Your task to perform on an android device: toggle location history Image 0: 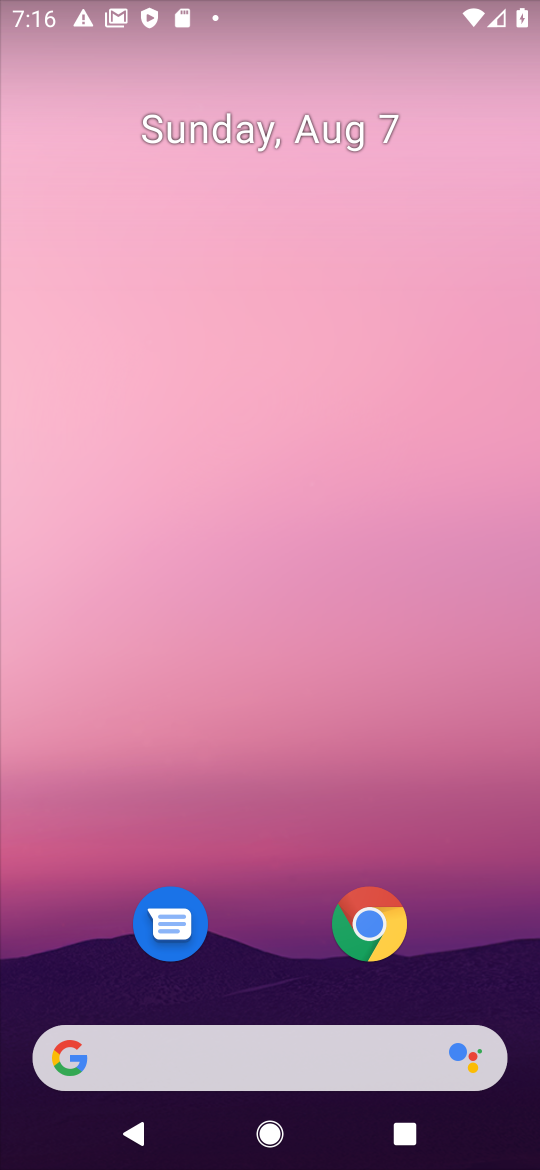
Step 0: drag from (376, 1093) to (270, 301)
Your task to perform on an android device: toggle location history Image 1: 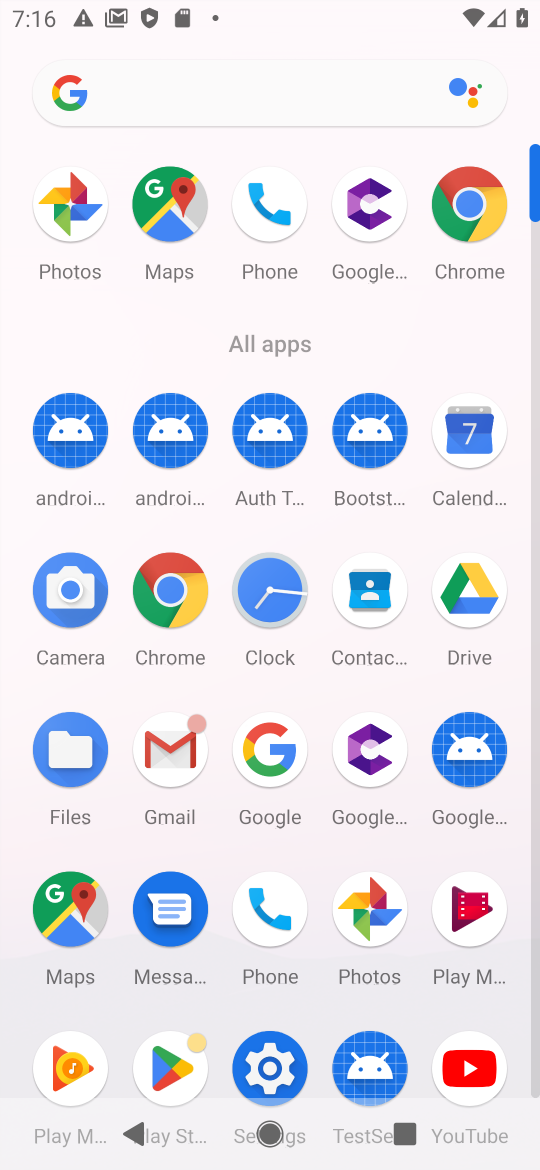
Step 1: click (271, 1054)
Your task to perform on an android device: toggle location history Image 2: 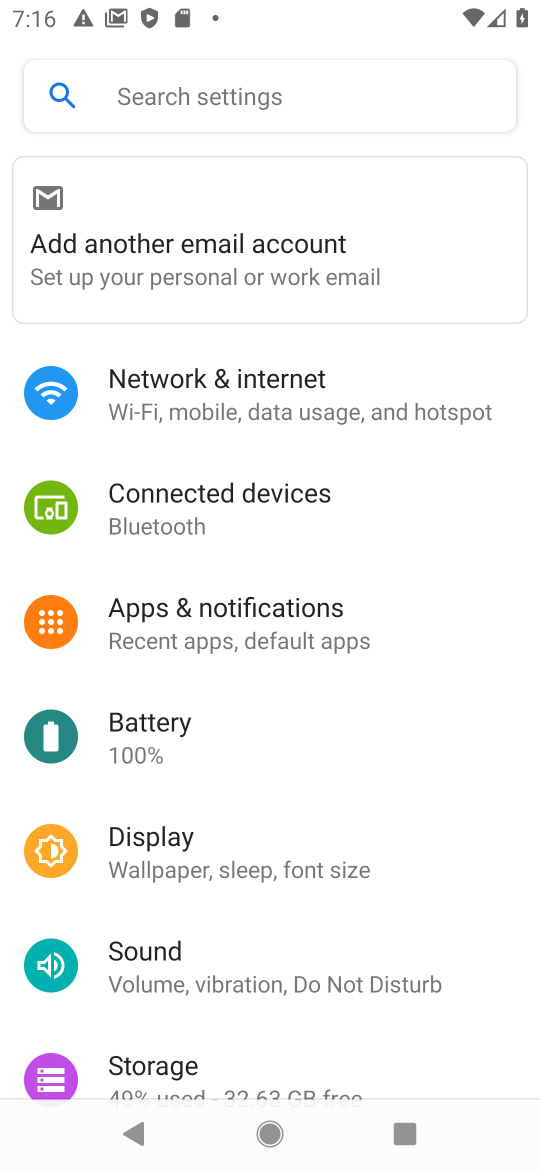
Step 2: drag from (184, 972) to (253, 806)
Your task to perform on an android device: toggle location history Image 3: 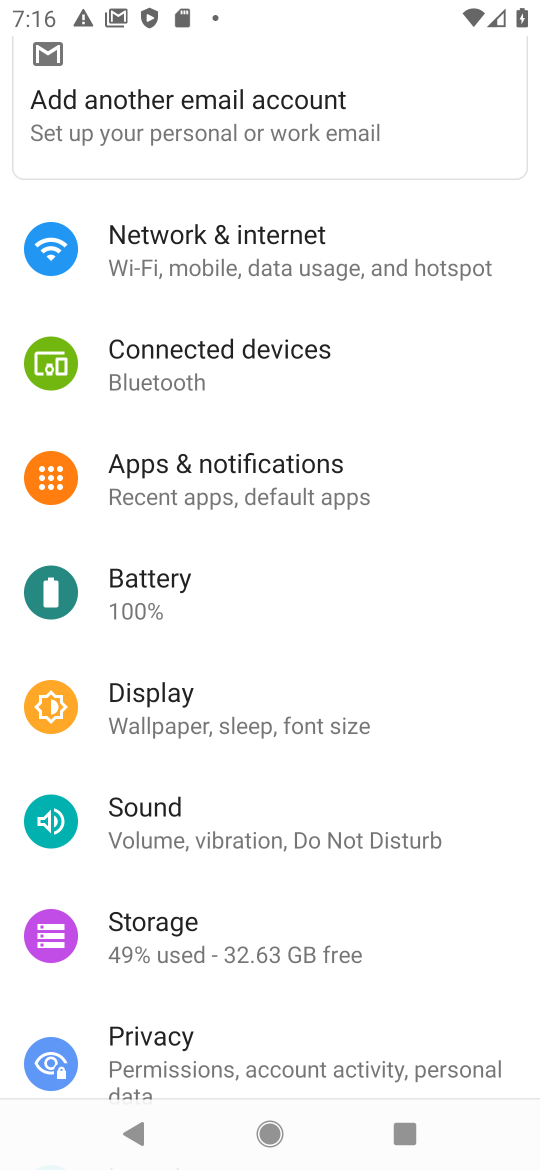
Step 3: drag from (248, 1037) to (280, 919)
Your task to perform on an android device: toggle location history Image 4: 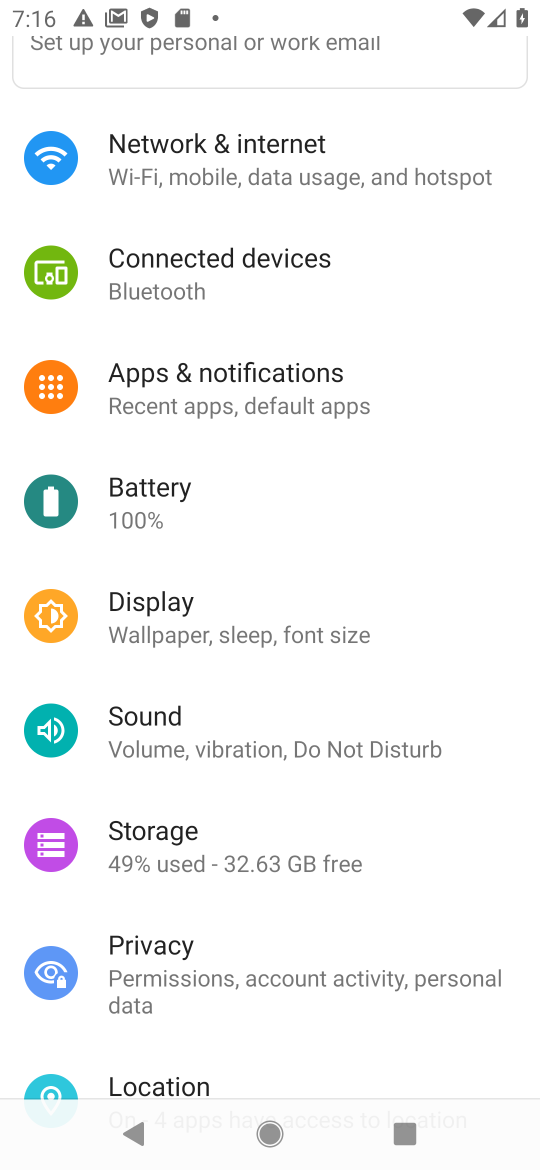
Step 4: click (178, 1075)
Your task to perform on an android device: toggle location history Image 5: 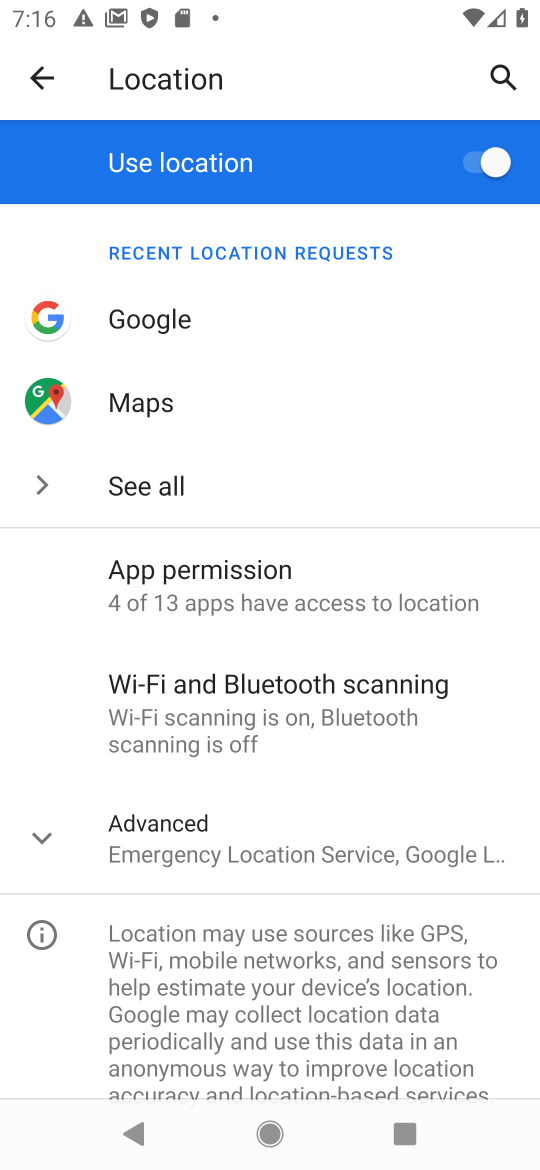
Step 5: click (39, 849)
Your task to perform on an android device: toggle location history Image 6: 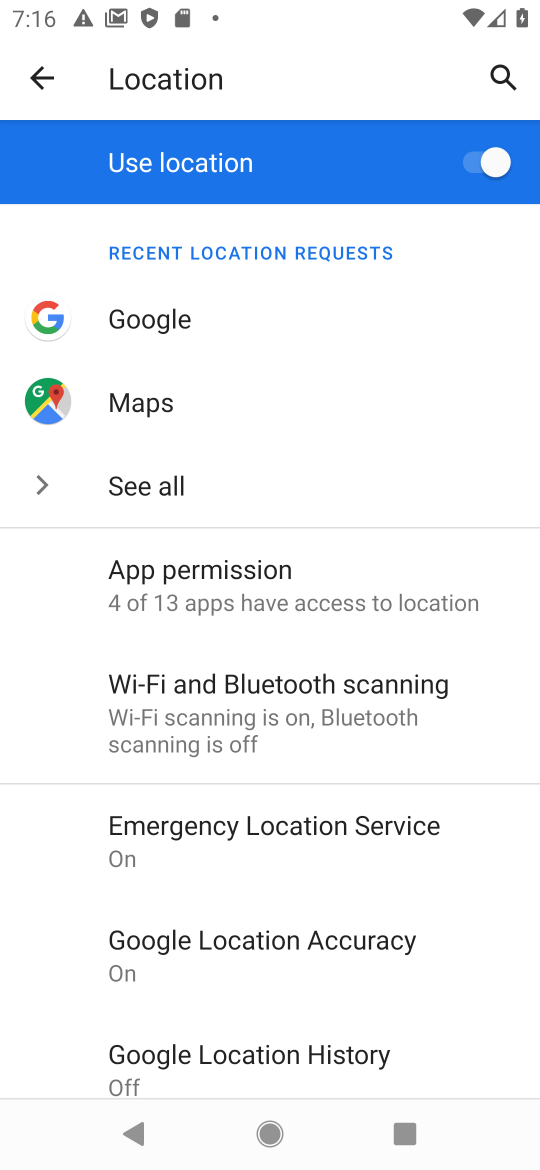
Step 6: click (239, 1048)
Your task to perform on an android device: toggle location history Image 7: 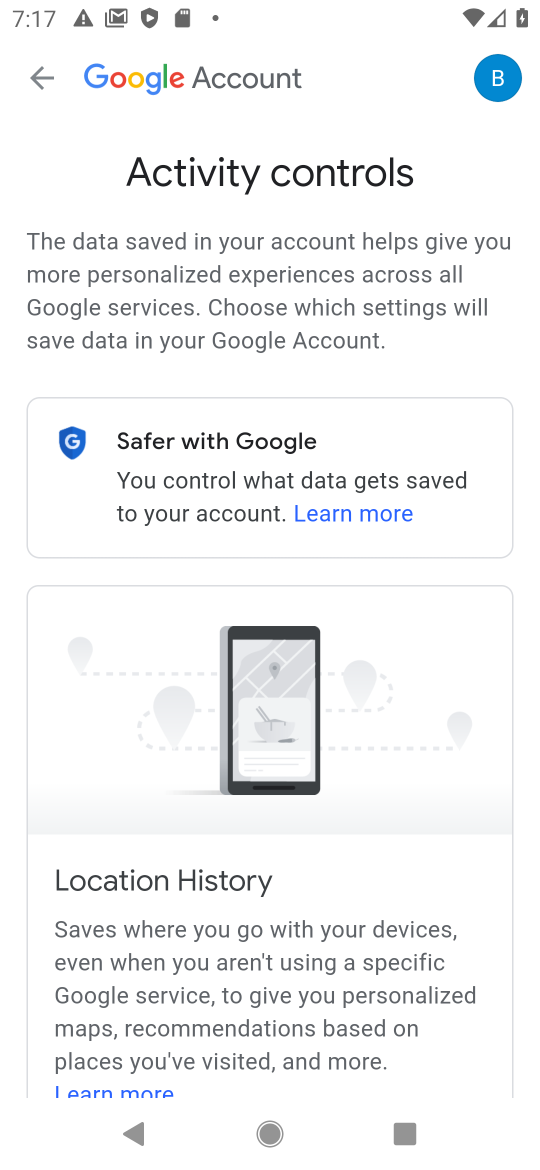
Step 7: task complete